Your task to perform on an android device: Open Yahoo.com Image 0: 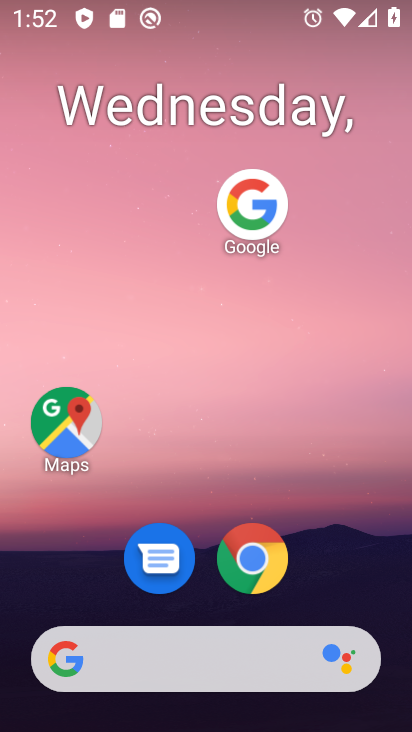
Step 0: click (263, 560)
Your task to perform on an android device: Open Yahoo.com Image 1: 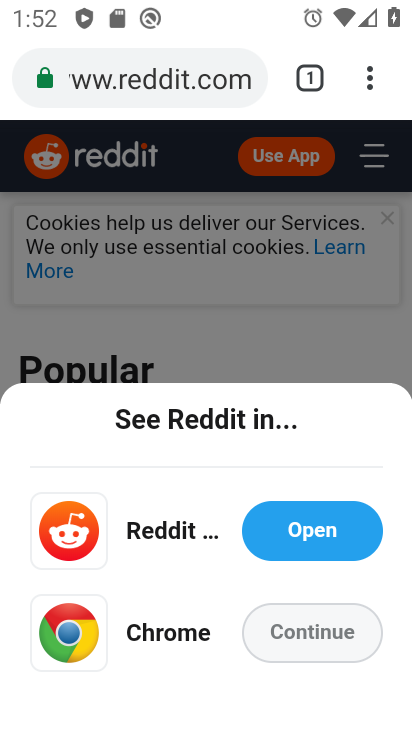
Step 1: click (173, 71)
Your task to perform on an android device: Open Yahoo.com Image 2: 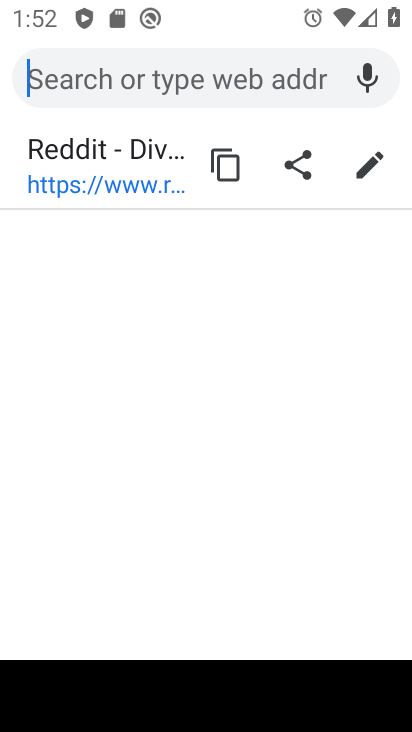
Step 2: type "yahoo.com"
Your task to perform on an android device: Open Yahoo.com Image 3: 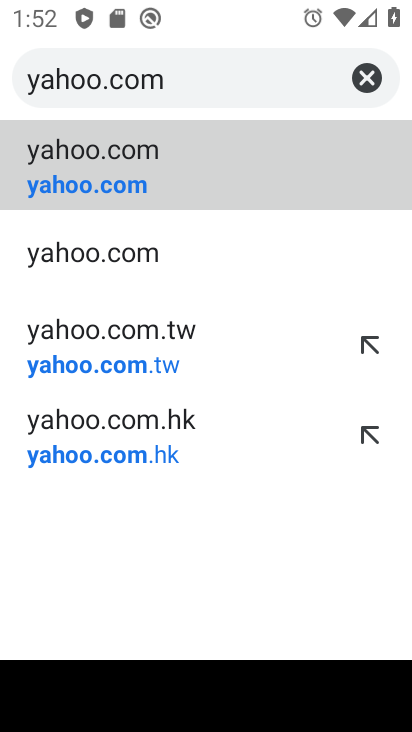
Step 3: click (174, 180)
Your task to perform on an android device: Open Yahoo.com Image 4: 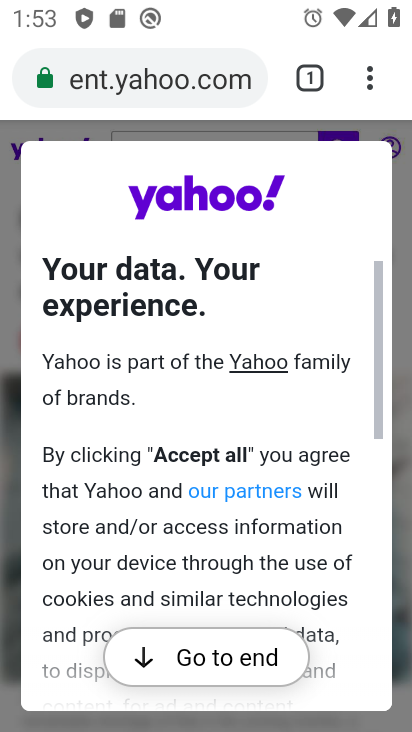
Step 4: drag from (356, 637) to (309, 189)
Your task to perform on an android device: Open Yahoo.com Image 5: 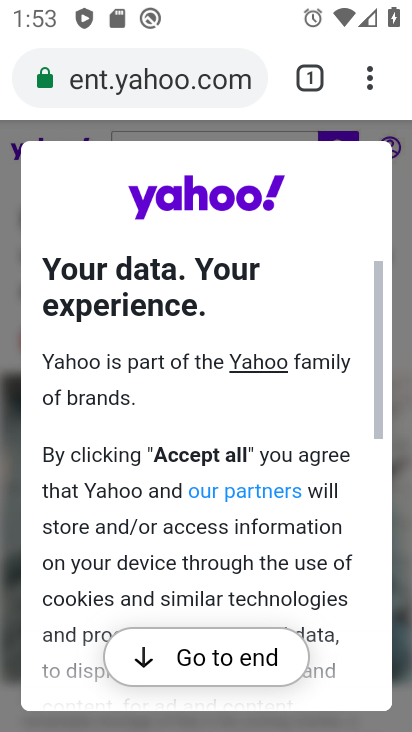
Step 5: click (381, 595)
Your task to perform on an android device: Open Yahoo.com Image 6: 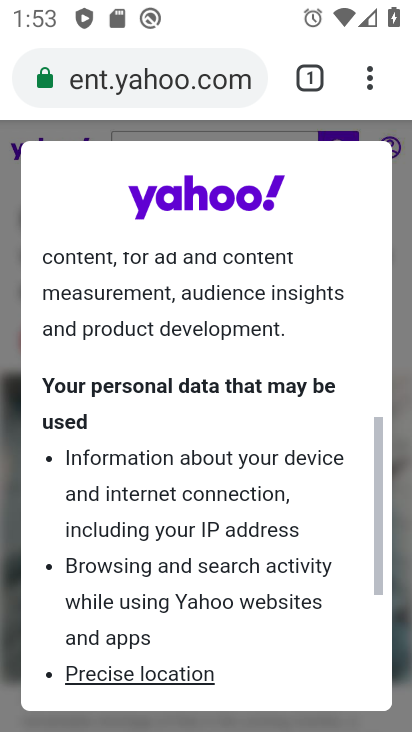
Step 6: task complete